Your task to perform on an android device: open a bookmark in the chrome app Image 0: 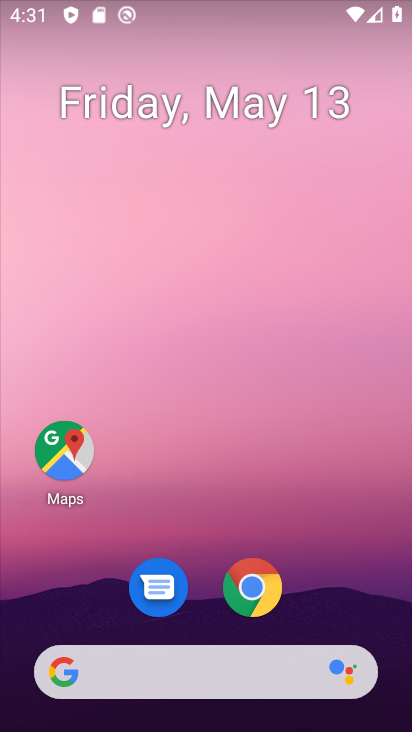
Step 0: click (244, 592)
Your task to perform on an android device: open a bookmark in the chrome app Image 1: 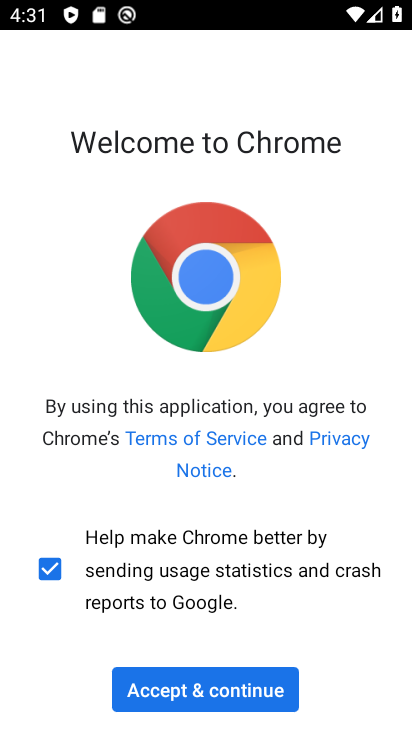
Step 1: click (208, 699)
Your task to perform on an android device: open a bookmark in the chrome app Image 2: 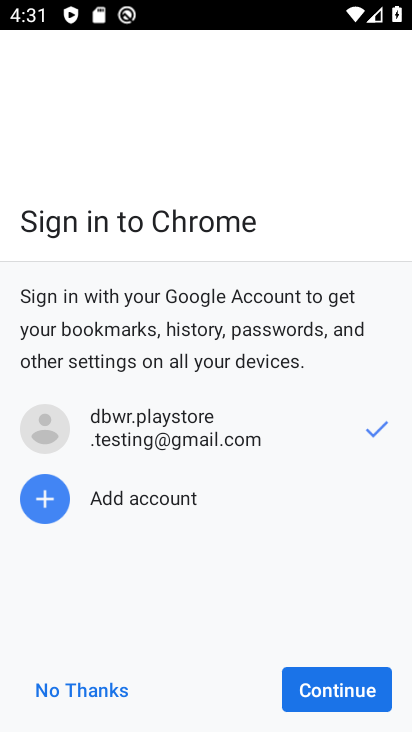
Step 2: click (322, 690)
Your task to perform on an android device: open a bookmark in the chrome app Image 3: 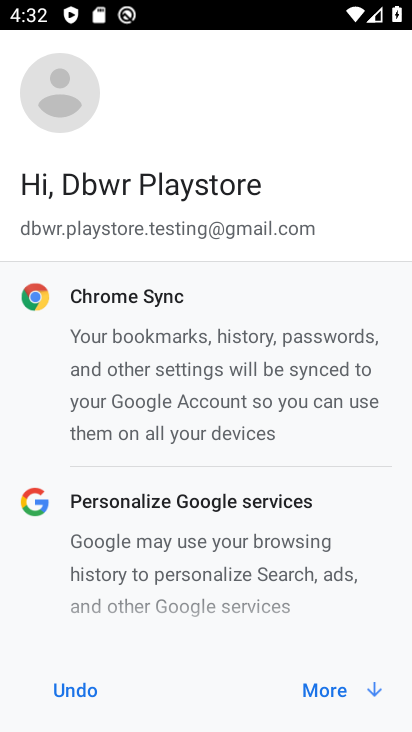
Step 3: click (321, 680)
Your task to perform on an android device: open a bookmark in the chrome app Image 4: 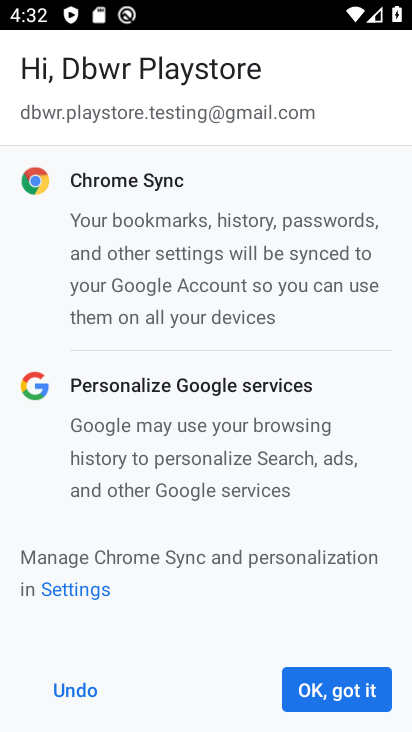
Step 4: click (326, 682)
Your task to perform on an android device: open a bookmark in the chrome app Image 5: 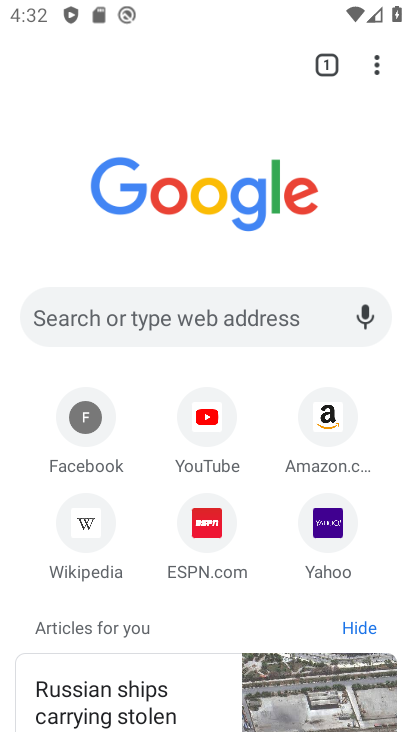
Step 5: task complete